Your task to perform on an android device: Go to wifi settings Image 0: 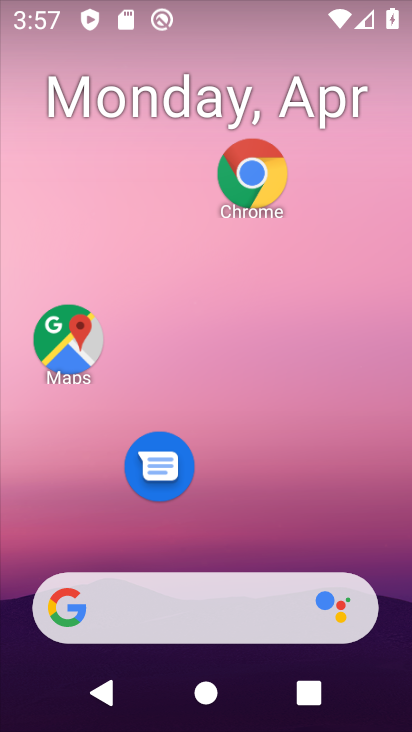
Step 0: drag from (403, 597) to (317, 217)
Your task to perform on an android device: Go to wifi settings Image 1: 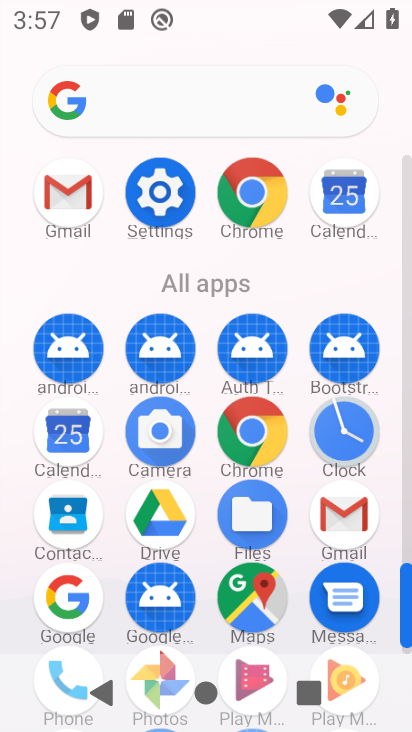
Step 1: click (165, 192)
Your task to perform on an android device: Go to wifi settings Image 2: 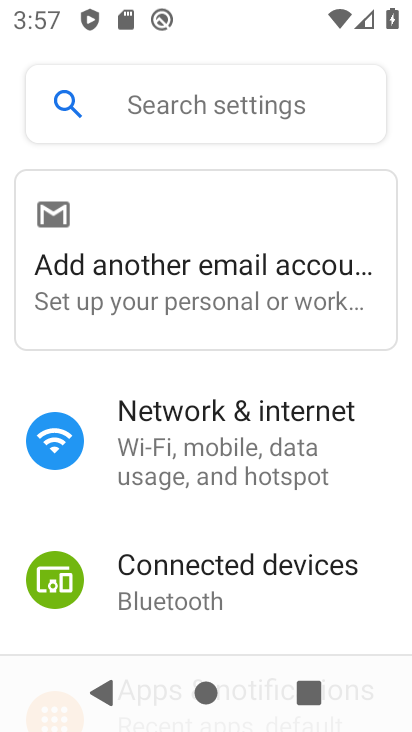
Step 2: click (278, 403)
Your task to perform on an android device: Go to wifi settings Image 3: 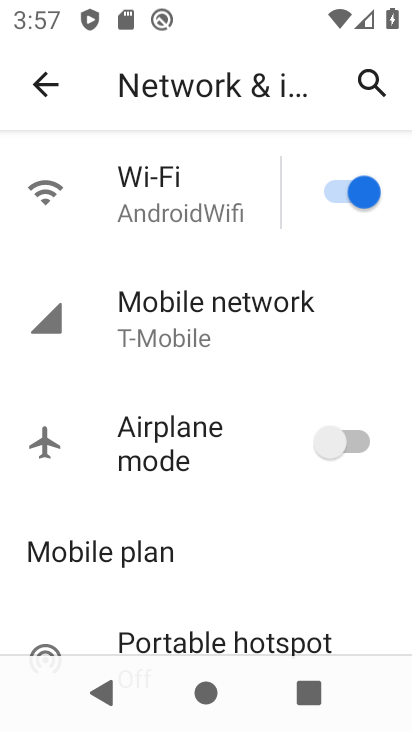
Step 3: click (192, 166)
Your task to perform on an android device: Go to wifi settings Image 4: 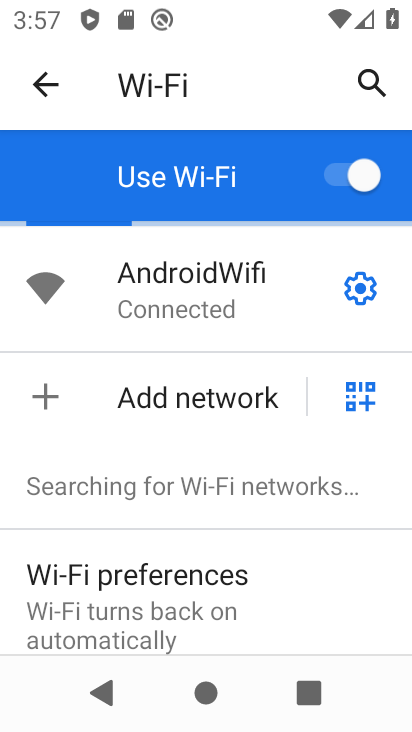
Step 4: task complete